Your task to perform on an android device: turn pop-ups on in chrome Image 0: 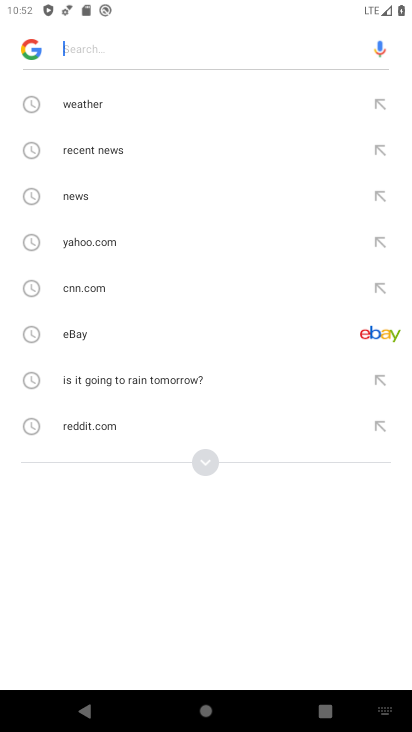
Step 0: press home button
Your task to perform on an android device: turn pop-ups on in chrome Image 1: 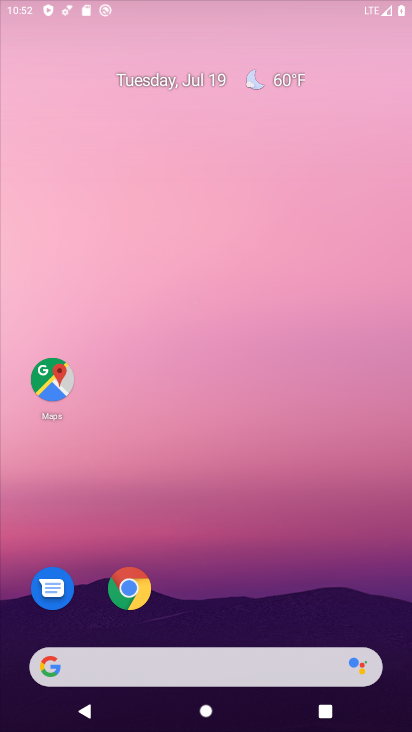
Step 1: drag from (409, 498) to (410, 231)
Your task to perform on an android device: turn pop-ups on in chrome Image 2: 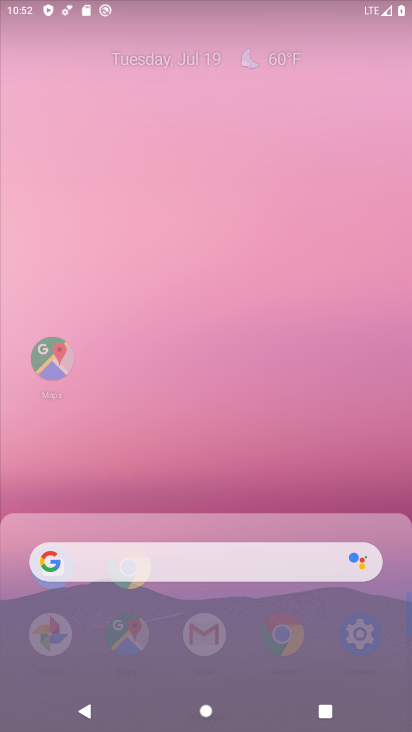
Step 2: drag from (292, 616) to (303, 112)
Your task to perform on an android device: turn pop-ups on in chrome Image 3: 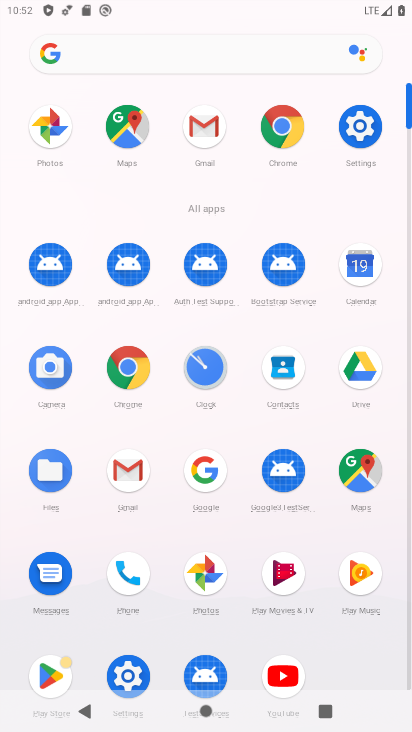
Step 3: click (280, 137)
Your task to perform on an android device: turn pop-ups on in chrome Image 4: 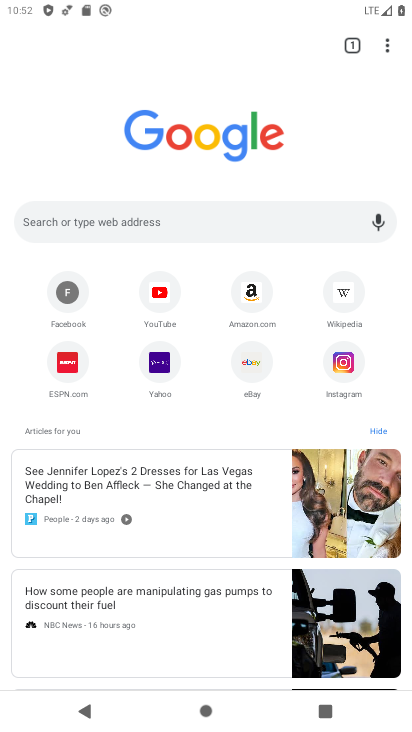
Step 4: drag from (385, 47) to (206, 394)
Your task to perform on an android device: turn pop-ups on in chrome Image 5: 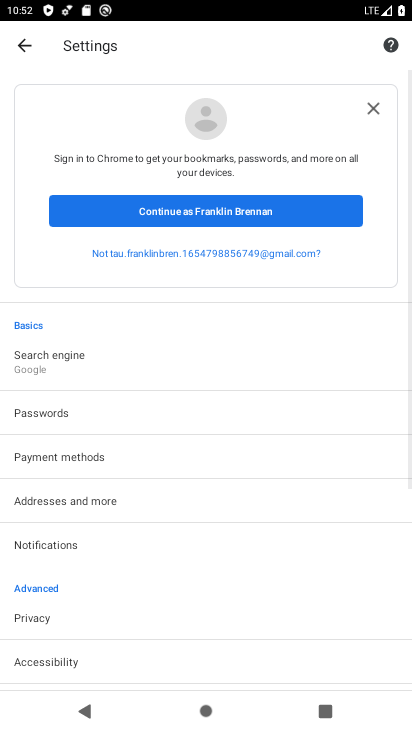
Step 5: drag from (94, 636) to (75, 267)
Your task to perform on an android device: turn pop-ups on in chrome Image 6: 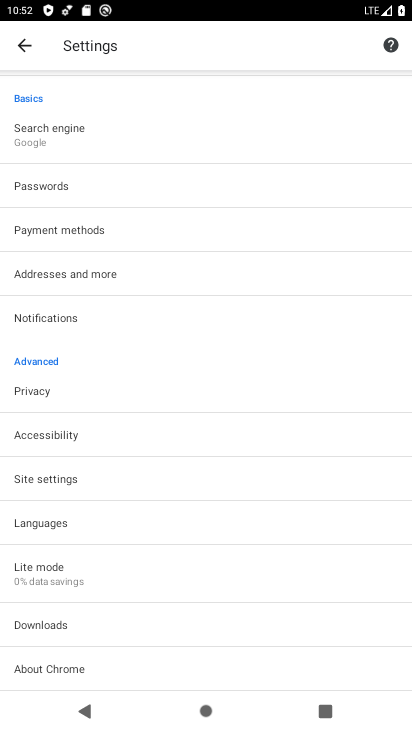
Step 6: click (79, 478)
Your task to perform on an android device: turn pop-ups on in chrome Image 7: 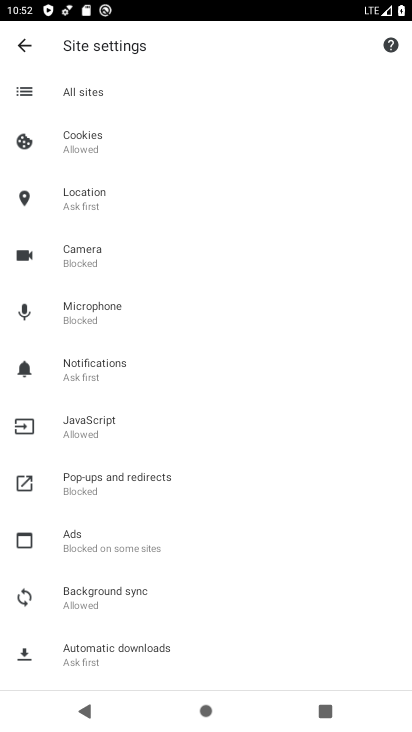
Step 7: click (85, 499)
Your task to perform on an android device: turn pop-ups on in chrome Image 8: 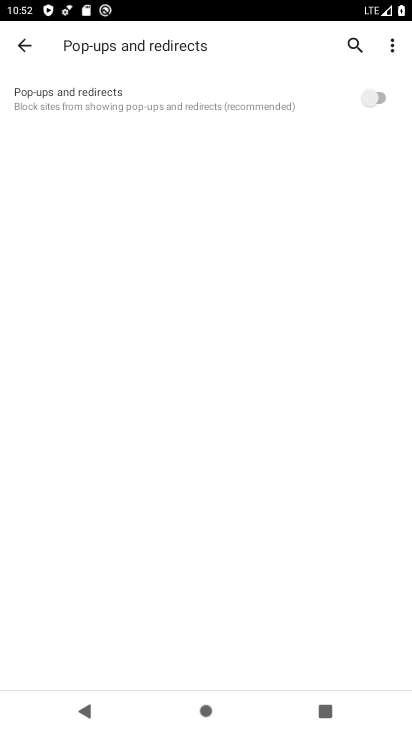
Step 8: click (377, 104)
Your task to perform on an android device: turn pop-ups on in chrome Image 9: 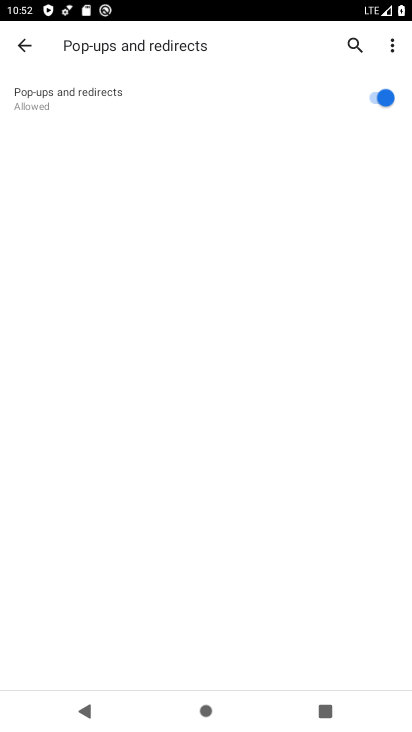
Step 9: task complete